Your task to perform on an android device: Search for seafood restaurants on Google Maps Image 0: 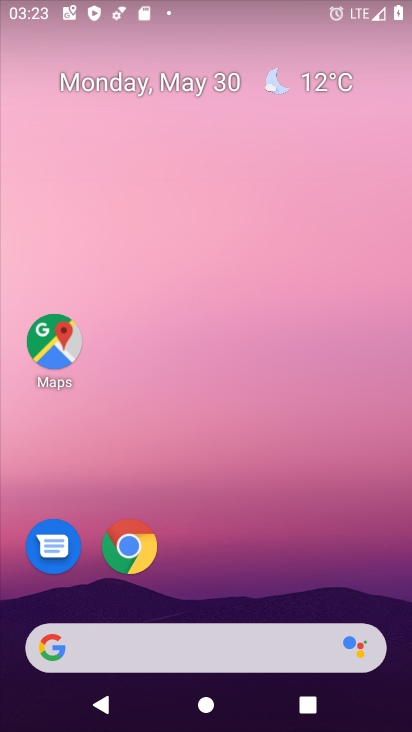
Step 0: click (54, 338)
Your task to perform on an android device: Search for seafood restaurants on Google Maps Image 1: 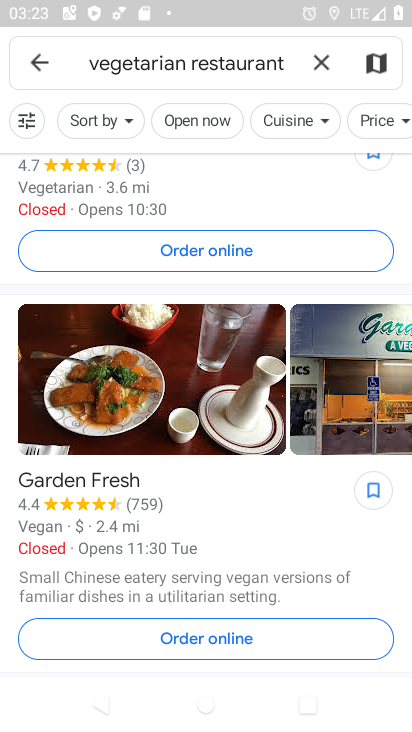
Step 1: click (315, 61)
Your task to perform on an android device: Search for seafood restaurants on Google Maps Image 2: 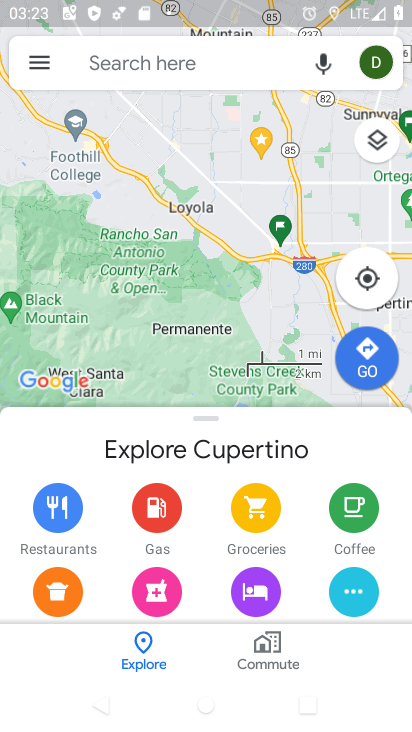
Step 2: click (116, 66)
Your task to perform on an android device: Search for seafood restaurants on Google Maps Image 3: 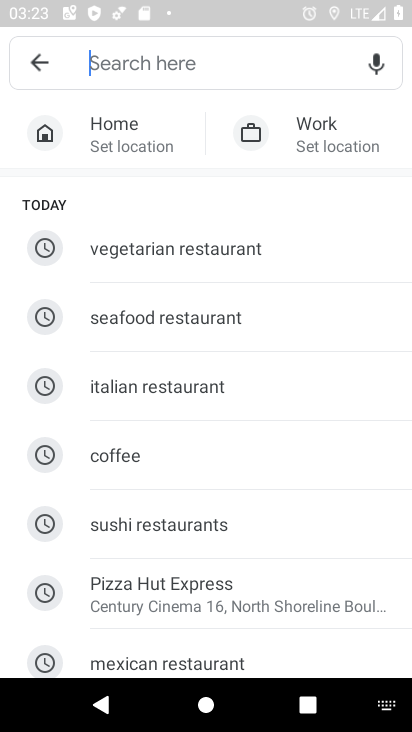
Step 3: click (164, 324)
Your task to perform on an android device: Search for seafood restaurants on Google Maps Image 4: 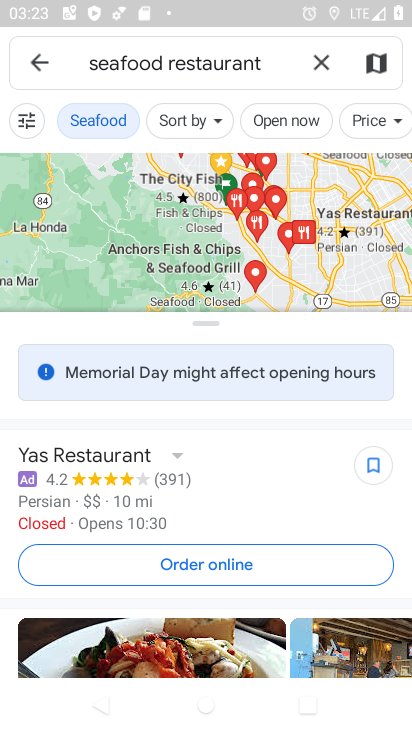
Step 4: task complete